Your task to perform on an android device: change the clock display to show seconds Image 0: 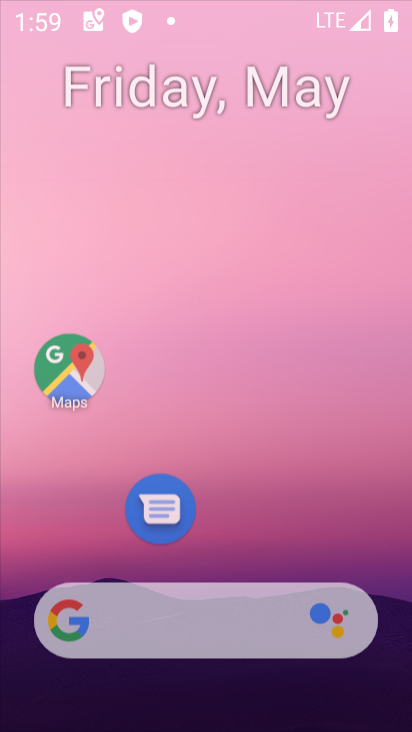
Step 0: drag from (228, 643) to (231, 191)
Your task to perform on an android device: change the clock display to show seconds Image 1: 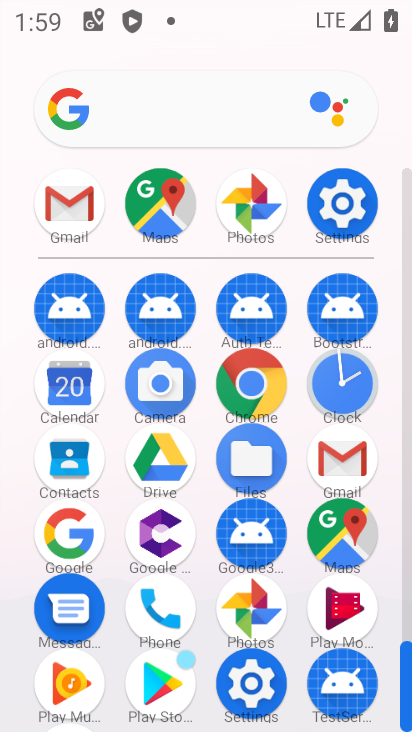
Step 1: drag from (187, 639) to (184, 206)
Your task to perform on an android device: change the clock display to show seconds Image 2: 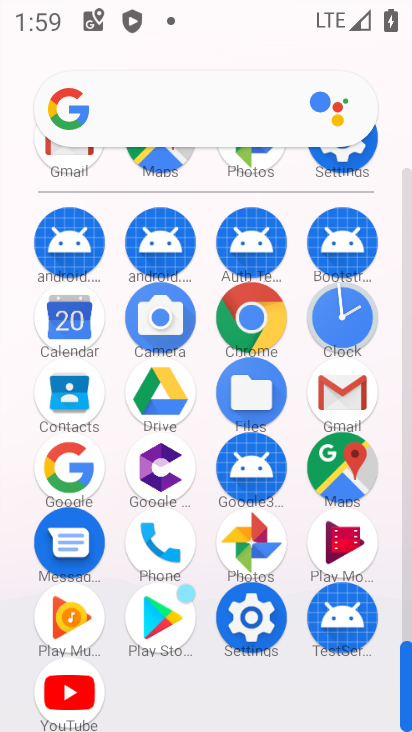
Step 2: click (245, 619)
Your task to perform on an android device: change the clock display to show seconds Image 3: 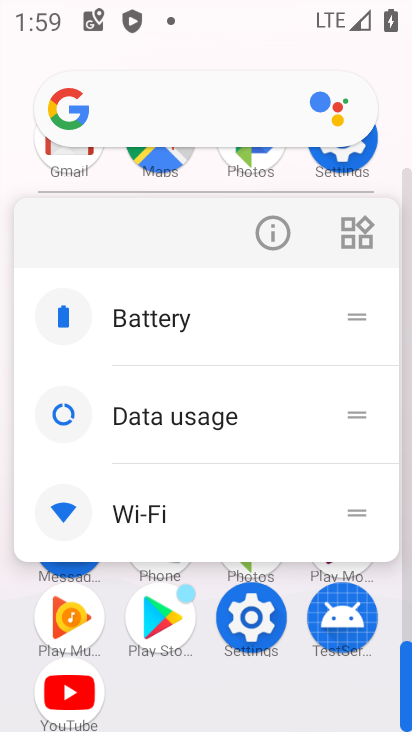
Step 3: click (276, 231)
Your task to perform on an android device: change the clock display to show seconds Image 4: 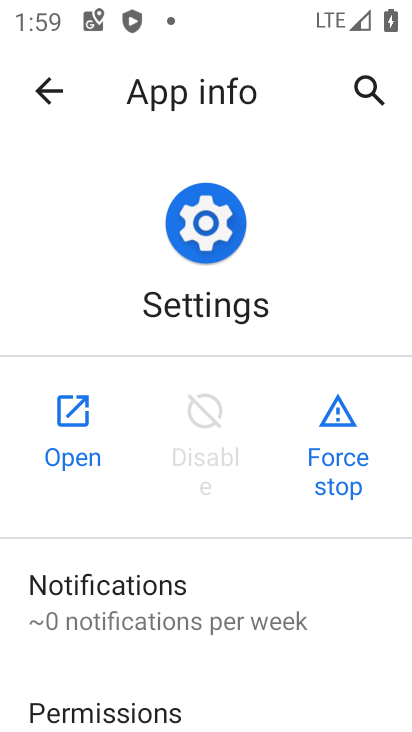
Step 4: press home button
Your task to perform on an android device: change the clock display to show seconds Image 5: 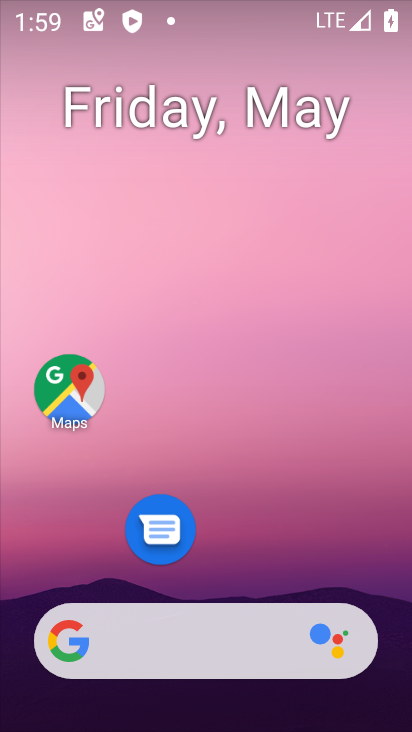
Step 5: drag from (212, 562) to (279, 56)
Your task to perform on an android device: change the clock display to show seconds Image 6: 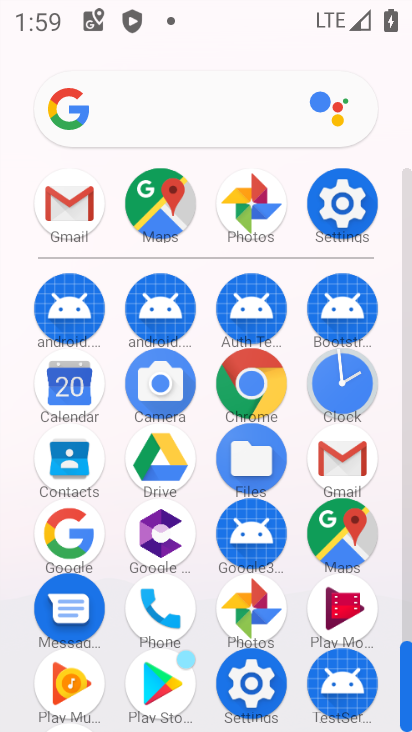
Step 6: click (336, 403)
Your task to perform on an android device: change the clock display to show seconds Image 7: 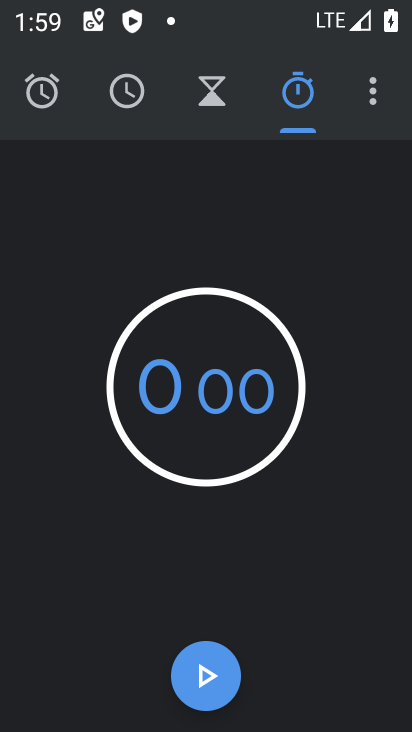
Step 7: click (374, 104)
Your task to perform on an android device: change the clock display to show seconds Image 8: 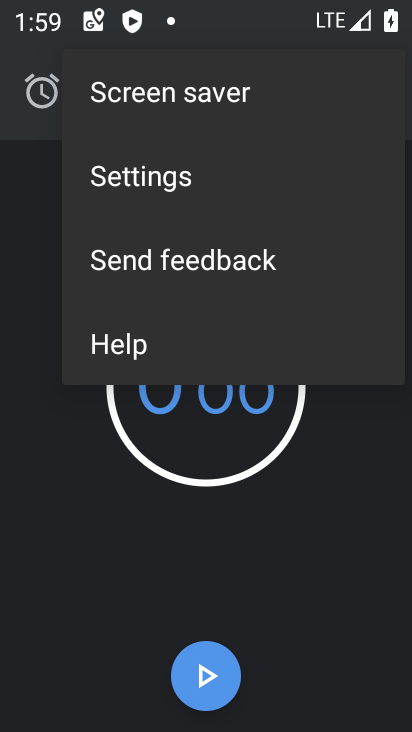
Step 8: click (189, 169)
Your task to perform on an android device: change the clock display to show seconds Image 9: 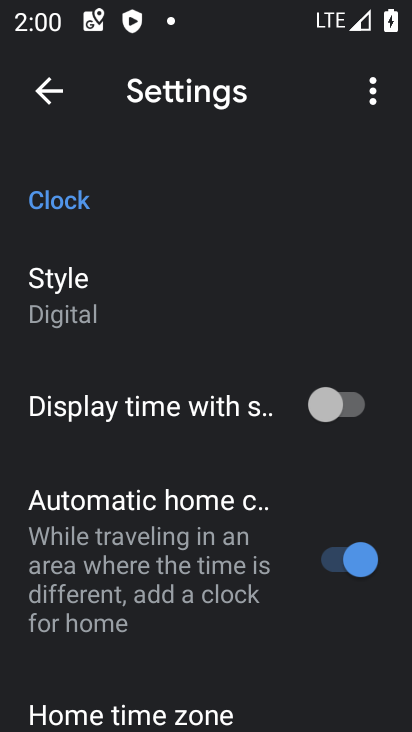
Step 9: drag from (185, 642) to (228, 352)
Your task to perform on an android device: change the clock display to show seconds Image 10: 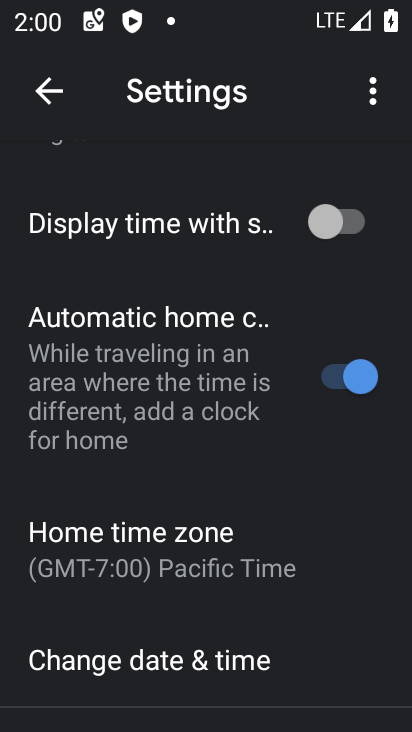
Step 10: drag from (282, 597) to (277, 386)
Your task to perform on an android device: change the clock display to show seconds Image 11: 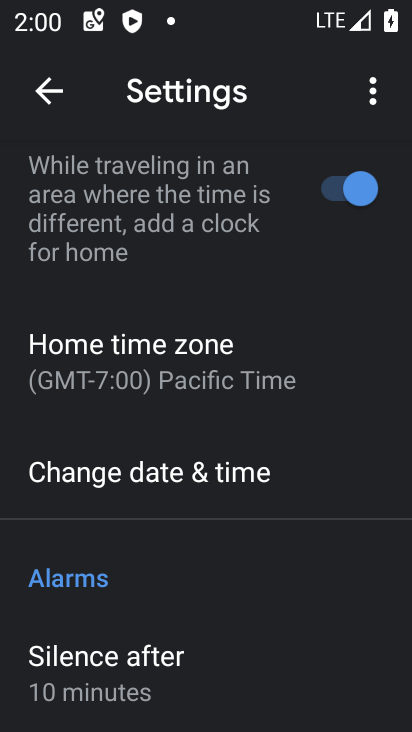
Step 11: drag from (230, 377) to (365, 685)
Your task to perform on an android device: change the clock display to show seconds Image 12: 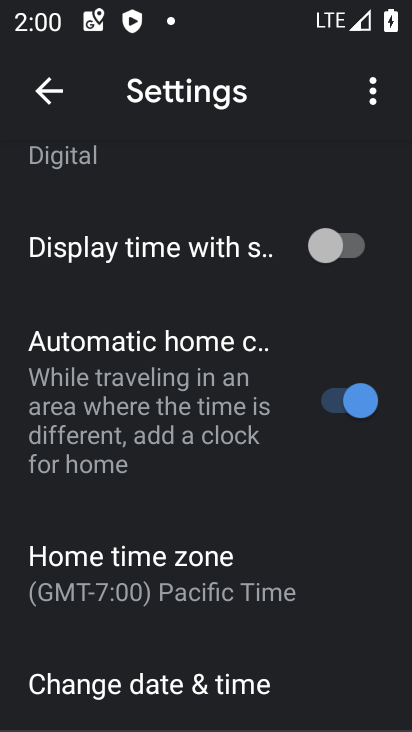
Step 12: drag from (253, 318) to (342, 594)
Your task to perform on an android device: change the clock display to show seconds Image 13: 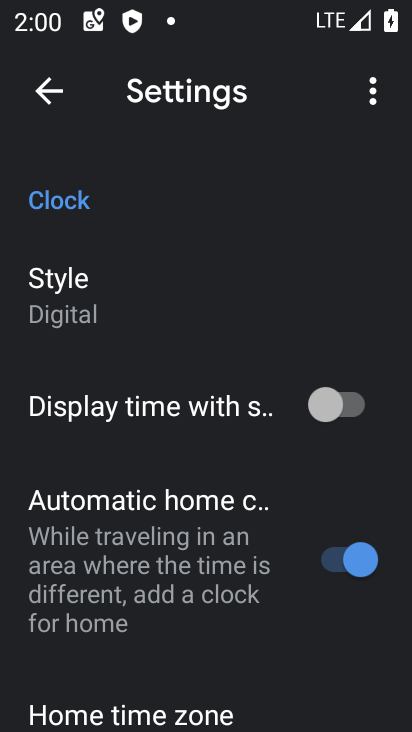
Step 13: drag from (297, 307) to (308, 715)
Your task to perform on an android device: change the clock display to show seconds Image 14: 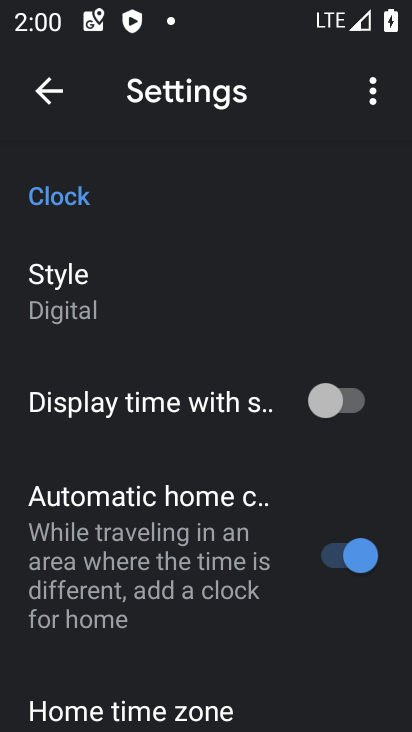
Step 14: click (311, 389)
Your task to perform on an android device: change the clock display to show seconds Image 15: 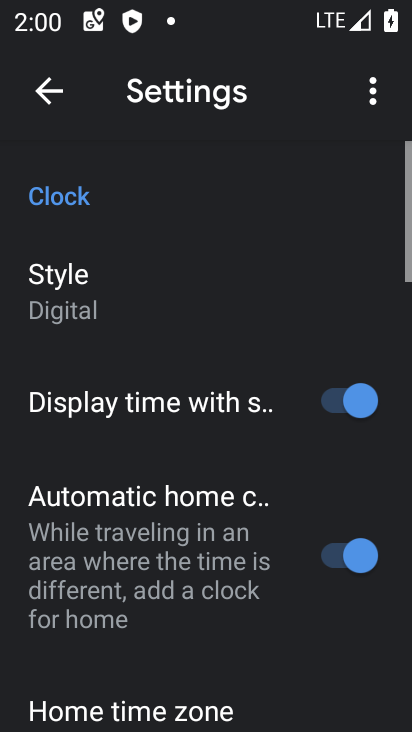
Step 15: task complete